Your task to perform on an android device: find which apps use the phone's location Image 0: 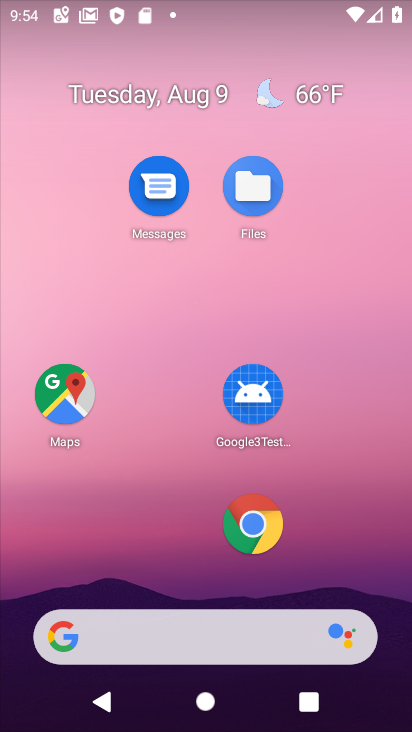
Step 0: click (21, 442)
Your task to perform on an android device: find which apps use the phone's location Image 1: 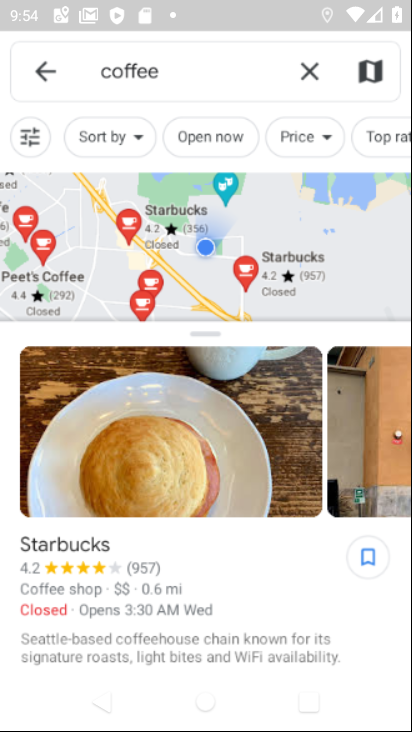
Step 1: click (155, 585)
Your task to perform on an android device: find which apps use the phone's location Image 2: 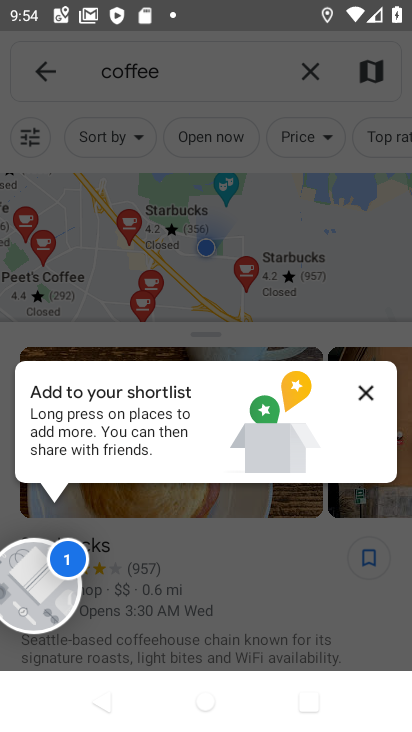
Step 2: press home button
Your task to perform on an android device: find which apps use the phone's location Image 3: 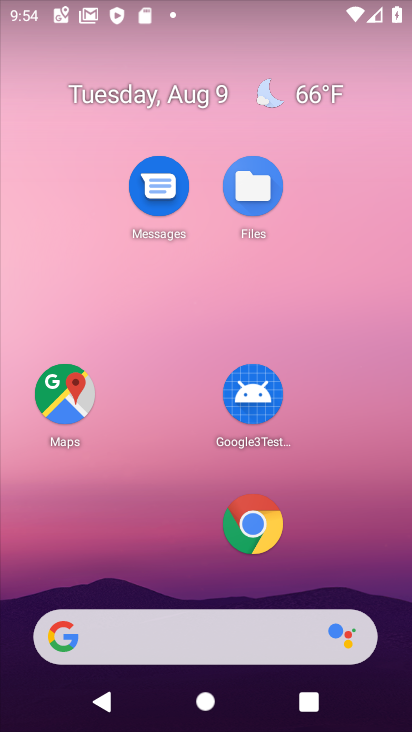
Step 3: drag from (228, 569) to (200, 190)
Your task to perform on an android device: find which apps use the phone's location Image 4: 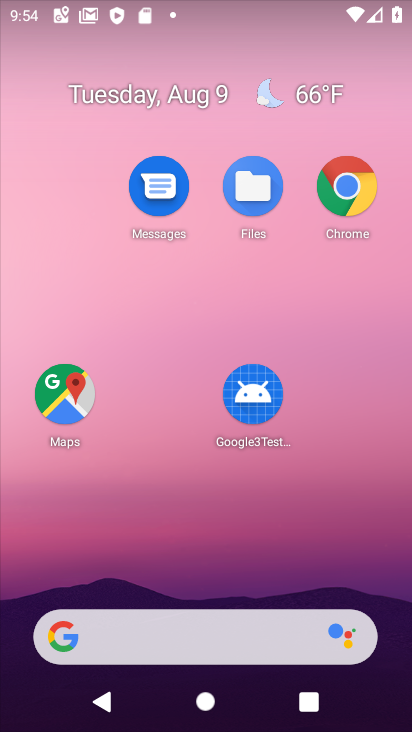
Step 4: drag from (124, 598) to (138, 74)
Your task to perform on an android device: find which apps use the phone's location Image 5: 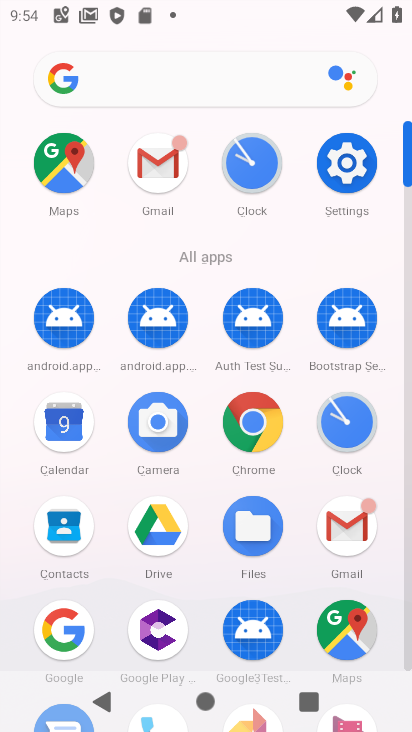
Step 5: click (363, 175)
Your task to perform on an android device: find which apps use the phone's location Image 6: 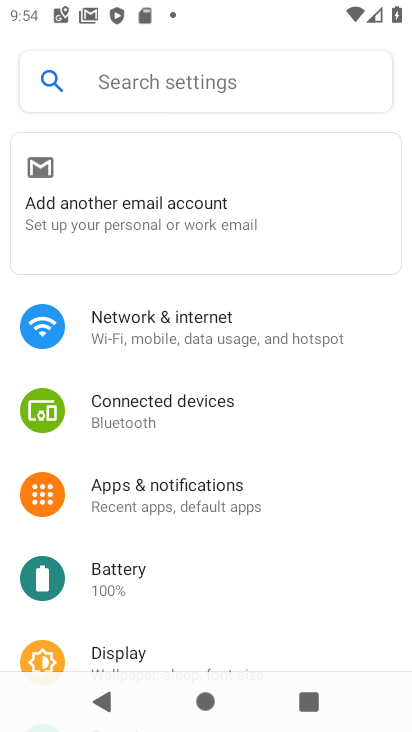
Step 6: drag from (121, 507) to (65, 4)
Your task to perform on an android device: find which apps use the phone's location Image 7: 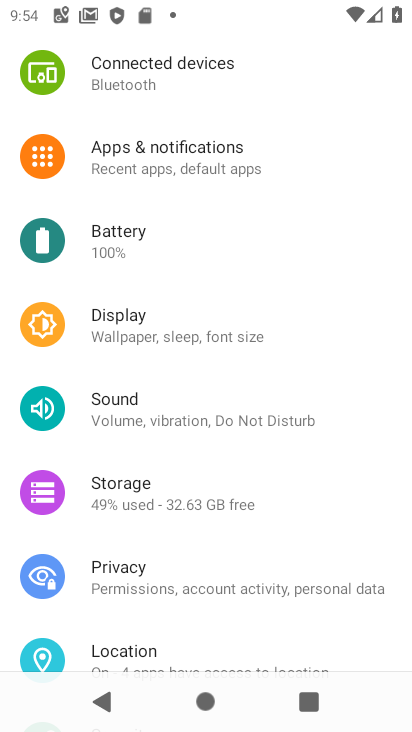
Step 7: click (54, 646)
Your task to perform on an android device: find which apps use the phone's location Image 8: 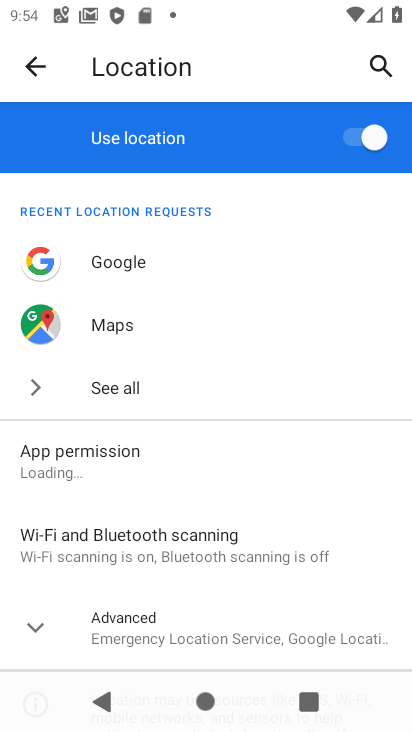
Step 8: click (141, 395)
Your task to perform on an android device: find which apps use the phone's location Image 9: 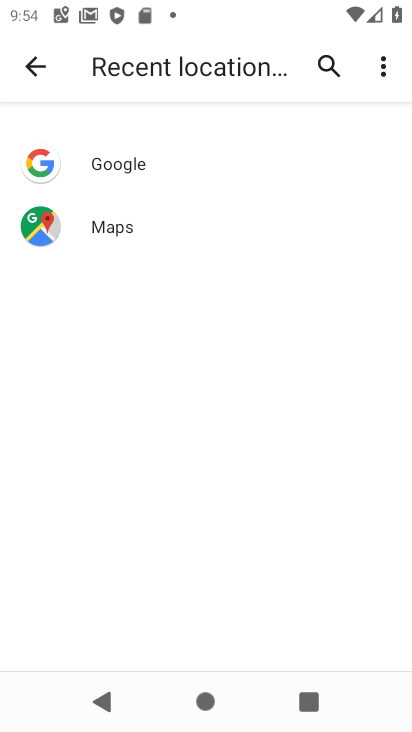
Step 9: task complete